Your task to perform on an android device: turn off picture-in-picture Image 0: 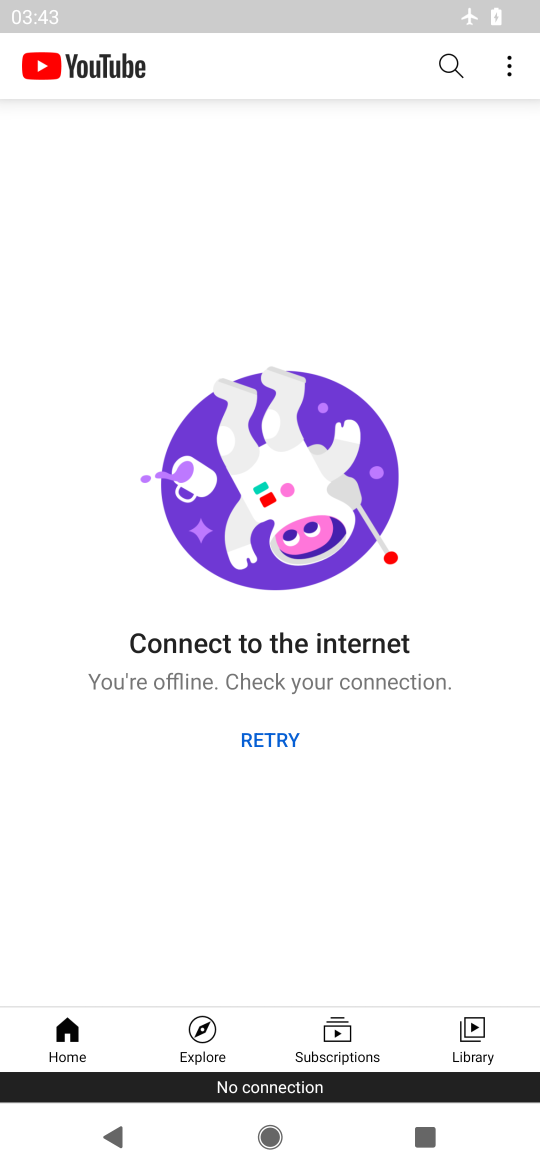
Step 0: press back button
Your task to perform on an android device: turn off picture-in-picture Image 1: 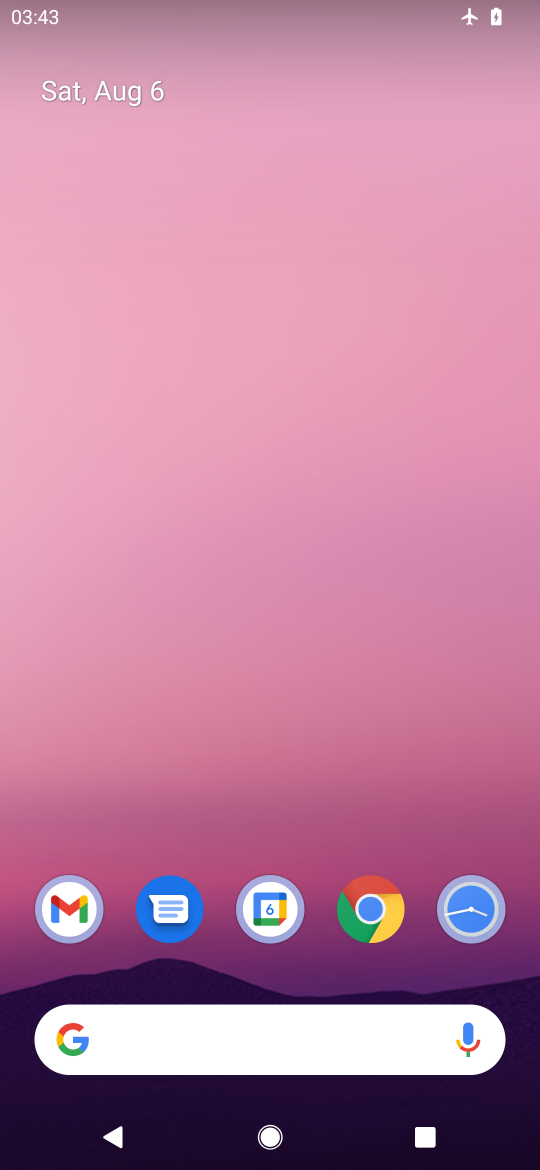
Step 1: drag from (192, 950) to (440, 181)
Your task to perform on an android device: turn off picture-in-picture Image 2: 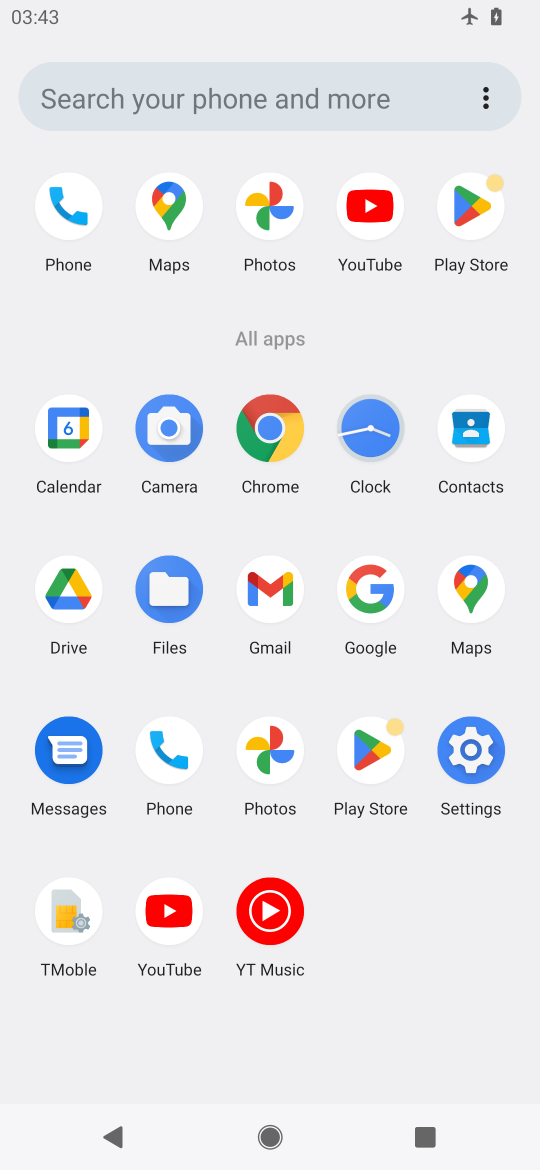
Step 2: click (466, 753)
Your task to perform on an android device: turn off picture-in-picture Image 3: 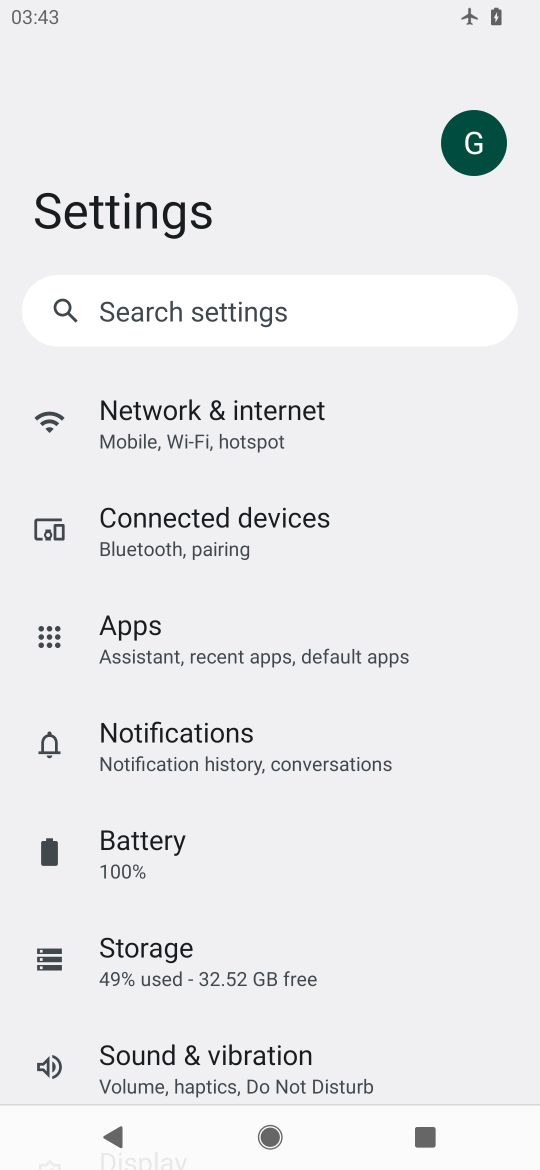
Step 3: click (264, 758)
Your task to perform on an android device: turn off picture-in-picture Image 4: 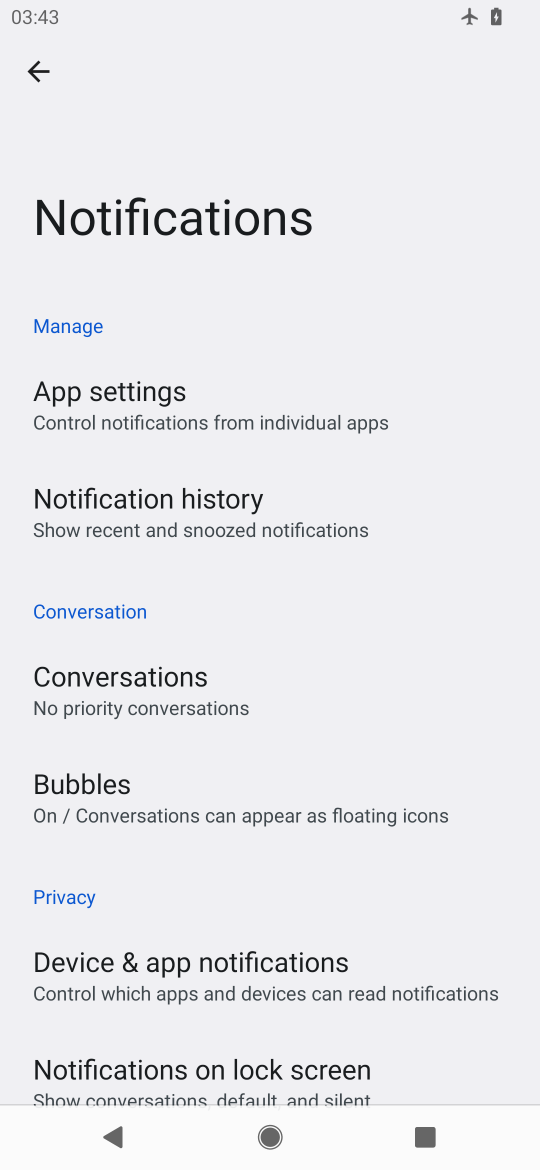
Step 4: drag from (203, 1026) to (319, 294)
Your task to perform on an android device: turn off picture-in-picture Image 5: 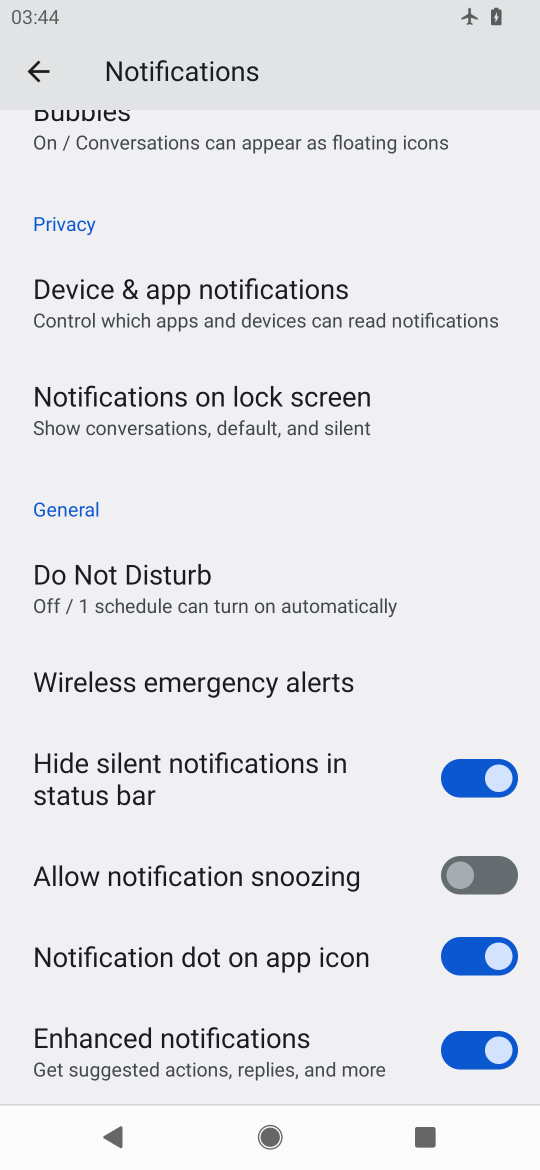
Step 5: drag from (402, 293) to (322, 1058)
Your task to perform on an android device: turn off picture-in-picture Image 6: 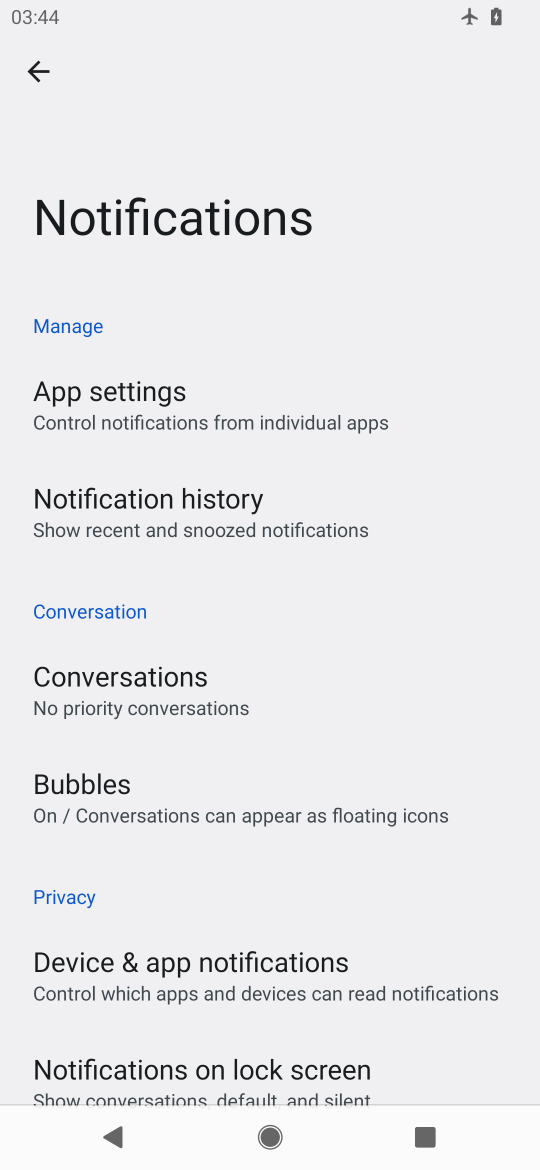
Step 6: drag from (298, 991) to (432, 389)
Your task to perform on an android device: turn off picture-in-picture Image 7: 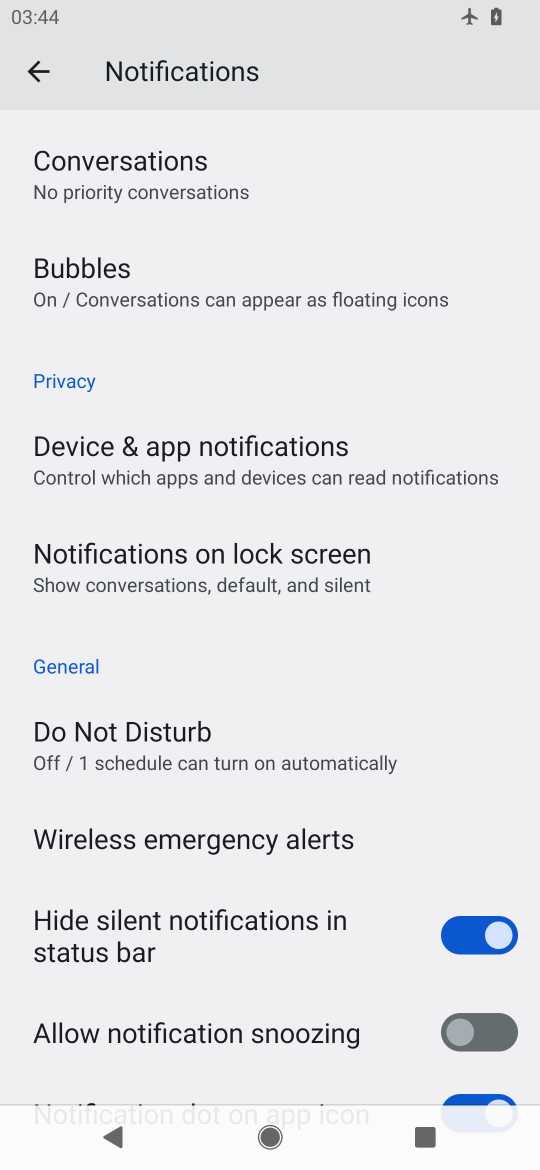
Step 7: click (212, 555)
Your task to perform on an android device: turn off picture-in-picture Image 8: 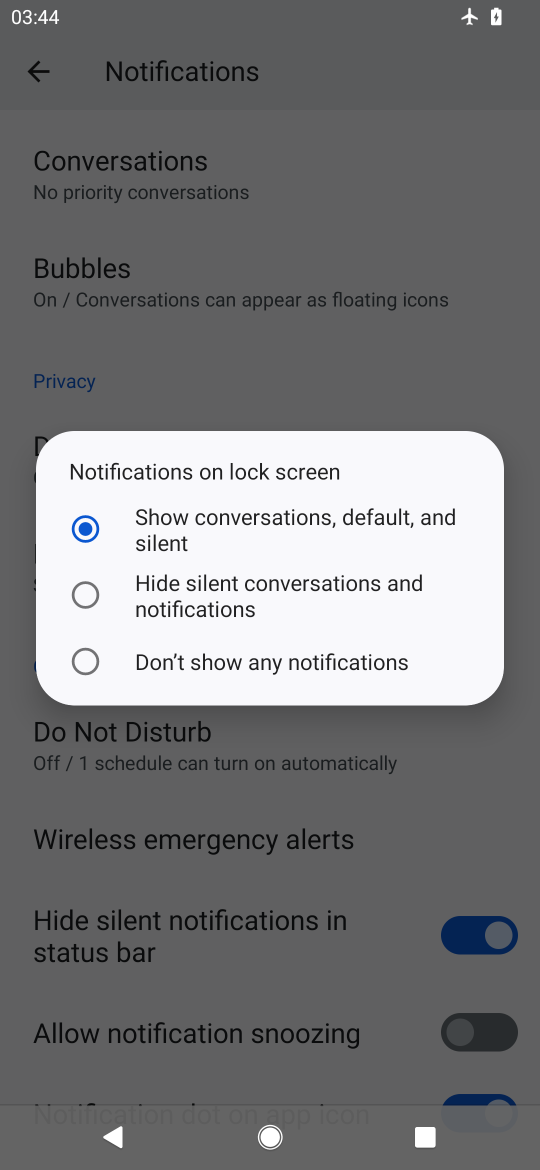
Step 8: click (300, 371)
Your task to perform on an android device: turn off picture-in-picture Image 9: 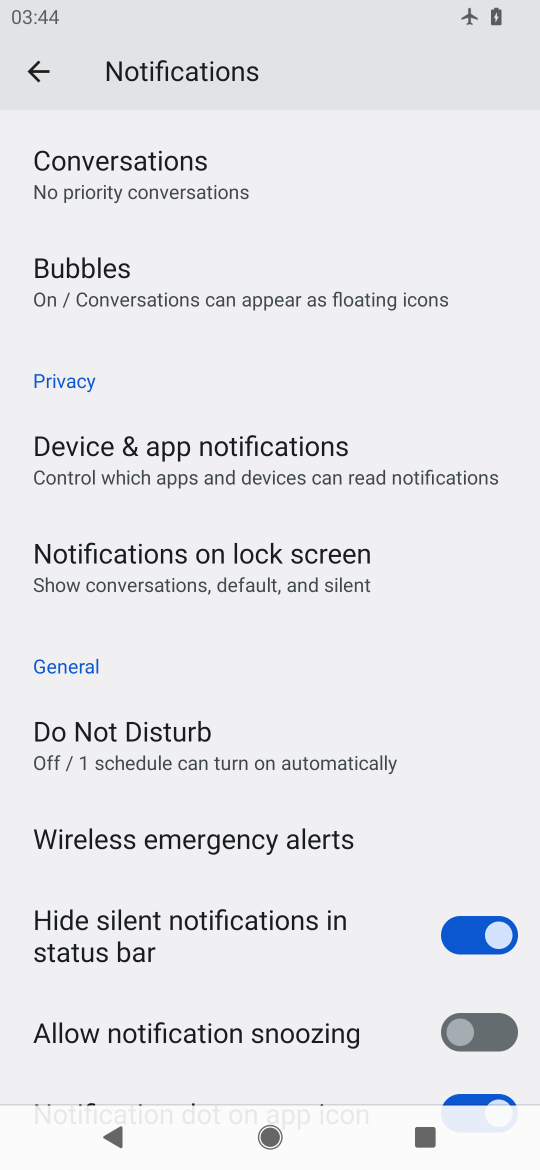
Step 9: drag from (324, 286) to (225, 1137)
Your task to perform on an android device: turn off picture-in-picture Image 10: 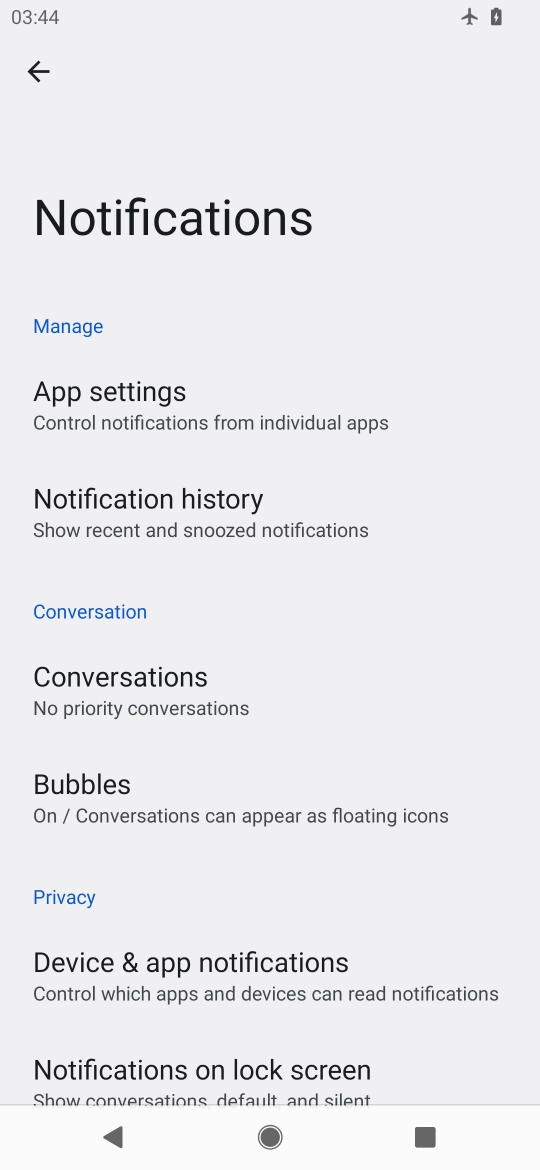
Step 10: click (217, 445)
Your task to perform on an android device: turn off picture-in-picture Image 11: 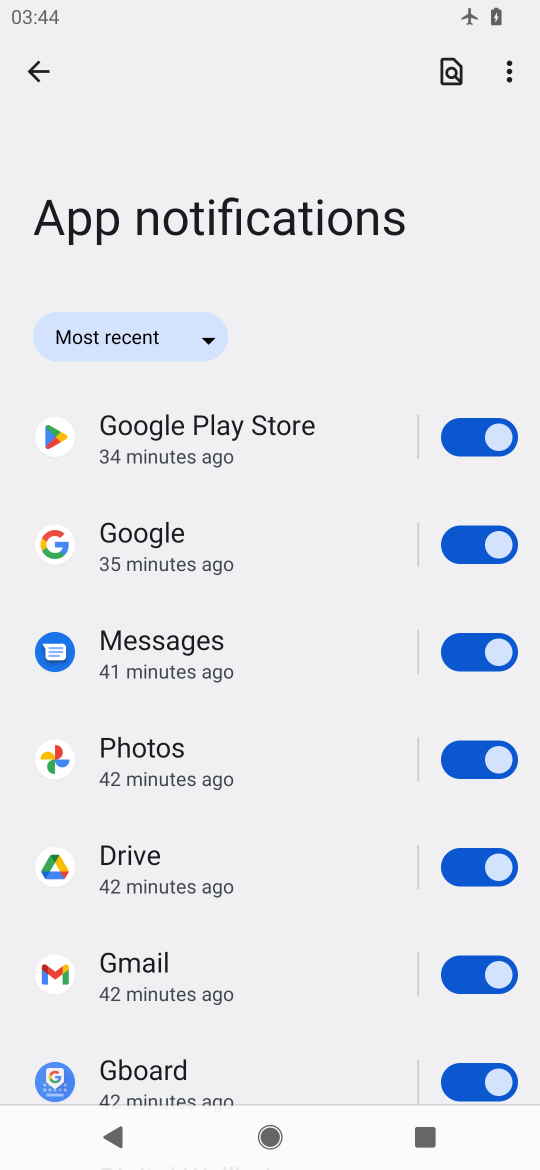
Step 11: click (39, 72)
Your task to perform on an android device: turn off picture-in-picture Image 12: 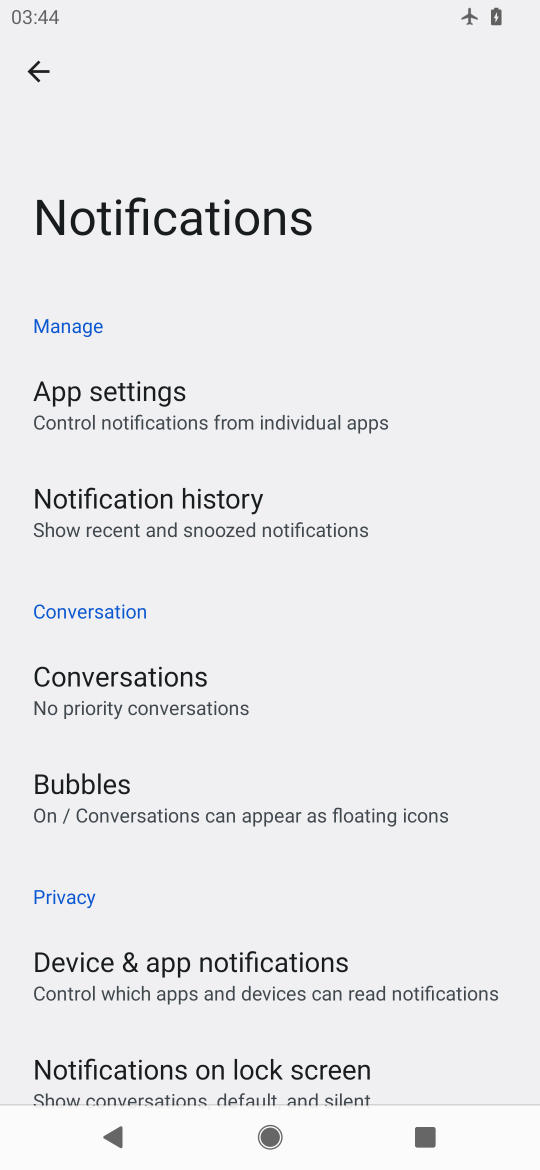
Step 12: task complete